Your task to perform on an android device: Open sound settings Image 0: 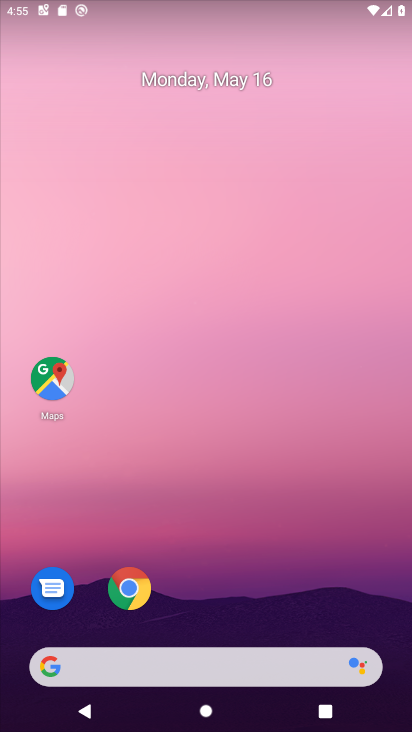
Step 0: drag from (231, 394) to (193, 54)
Your task to perform on an android device: Open sound settings Image 1: 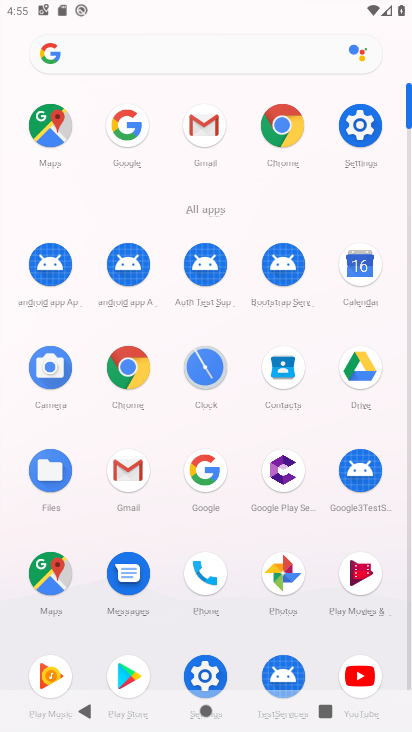
Step 1: click (361, 141)
Your task to perform on an android device: Open sound settings Image 2: 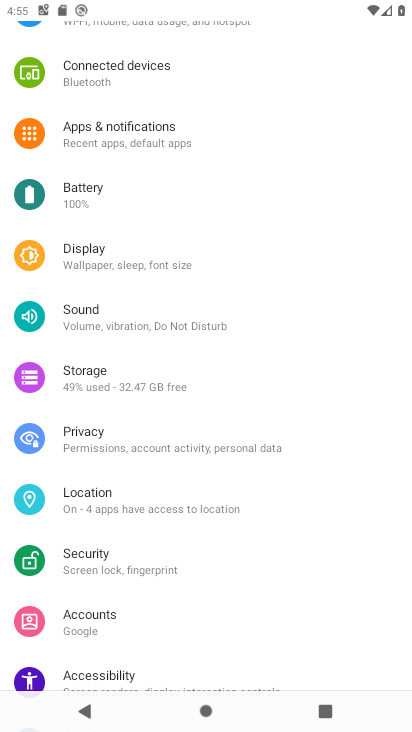
Step 2: click (113, 312)
Your task to perform on an android device: Open sound settings Image 3: 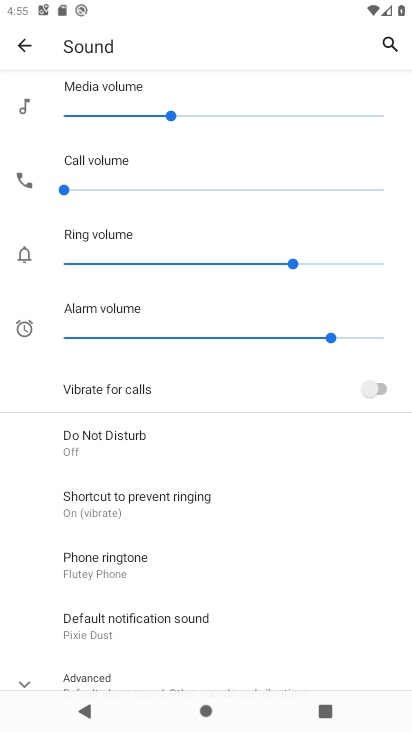
Step 3: task complete